Your task to perform on an android device: turn on showing notifications on the lock screen Image 0: 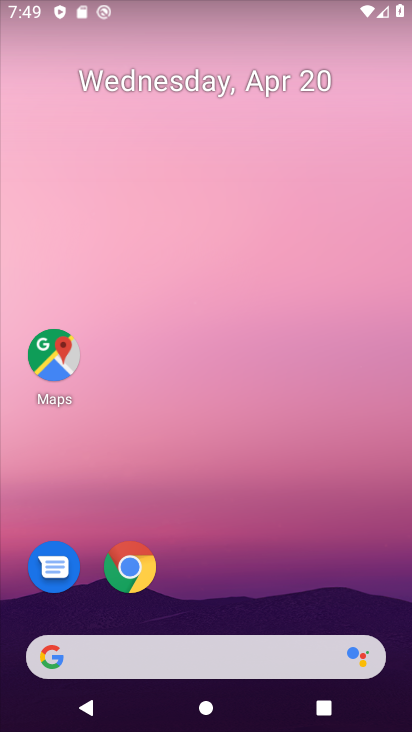
Step 0: drag from (344, 524) to (270, 11)
Your task to perform on an android device: turn on showing notifications on the lock screen Image 1: 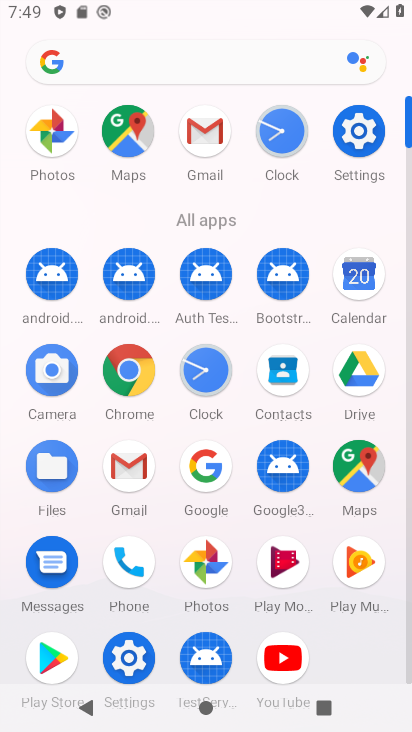
Step 1: click (365, 120)
Your task to perform on an android device: turn on showing notifications on the lock screen Image 2: 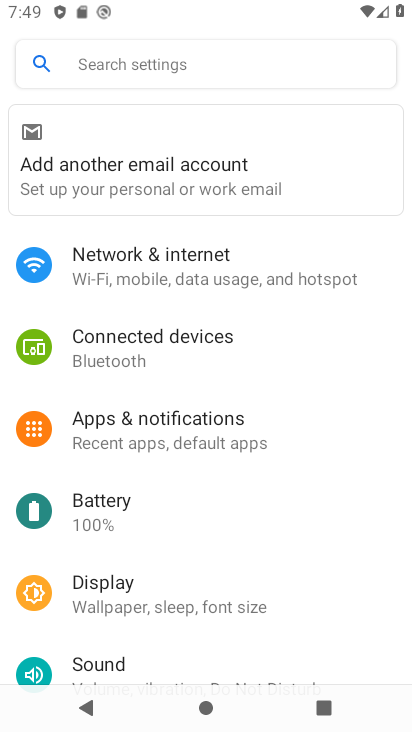
Step 2: click (229, 432)
Your task to perform on an android device: turn on showing notifications on the lock screen Image 3: 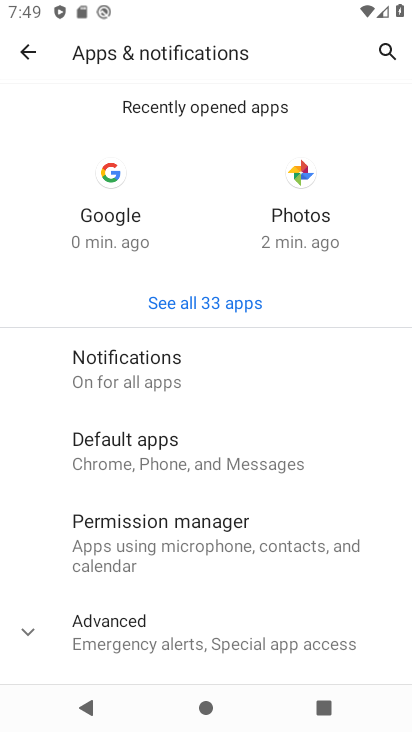
Step 3: click (141, 370)
Your task to perform on an android device: turn on showing notifications on the lock screen Image 4: 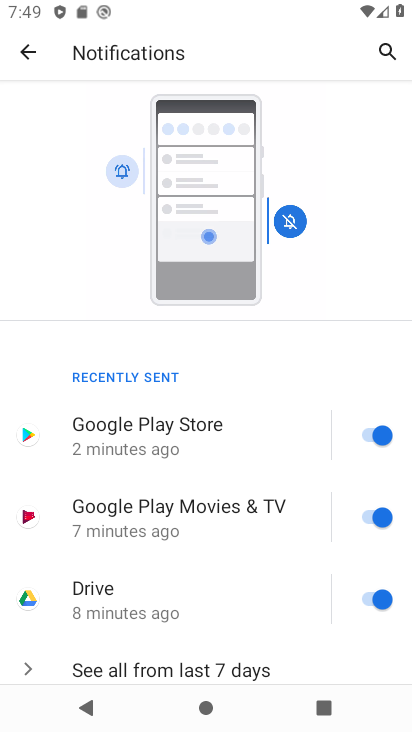
Step 4: drag from (218, 546) to (204, 345)
Your task to perform on an android device: turn on showing notifications on the lock screen Image 5: 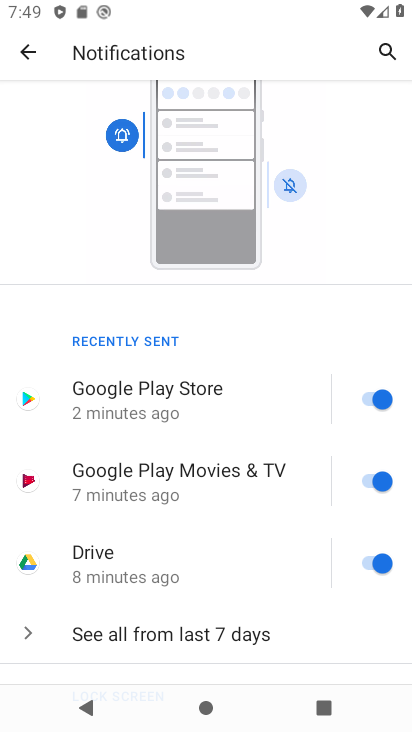
Step 5: drag from (222, 625) to (254, 333)
Your task to perform on an android device: turn on showing notifications on the lock screen Image 6: 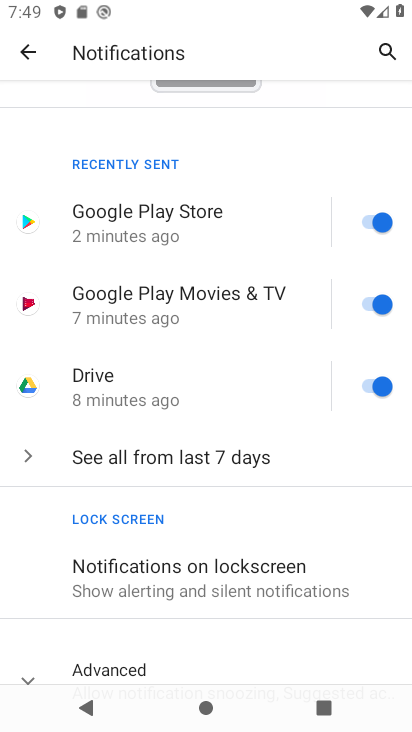
Step 6: drag from (227, 657) to (262, 348)
Your task to perform on an android device: turn on showing notifications on the lock screen Image 7: 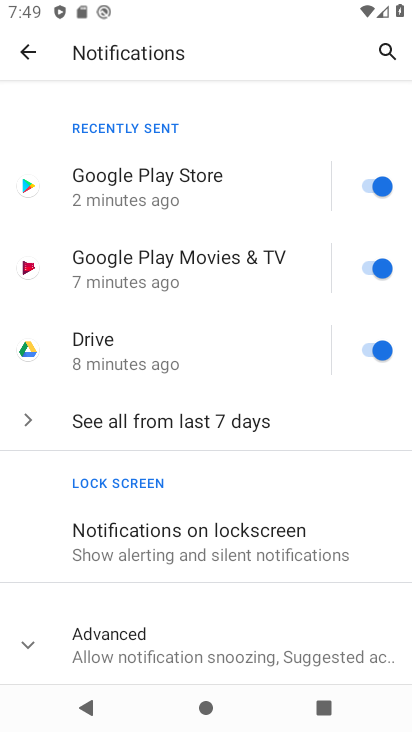
Step 7: click (251, 546)
Your task to perform on an android device: turn on showing notifications on the lock screen Image 8: 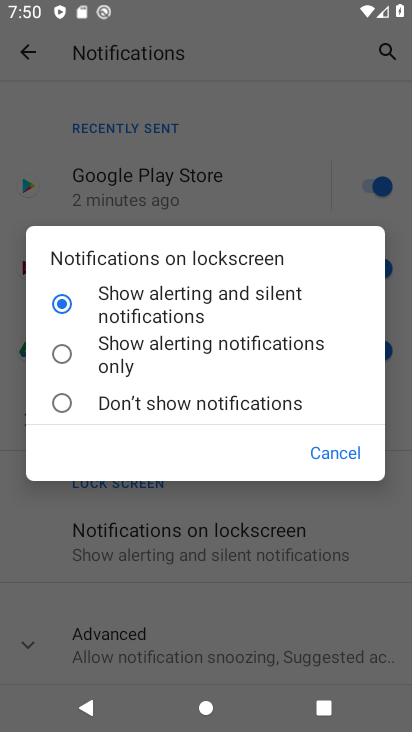
Step 8: click (66, 355)
Your task to perform on an android device: turn on showing notifications on the lock screen Image 9: 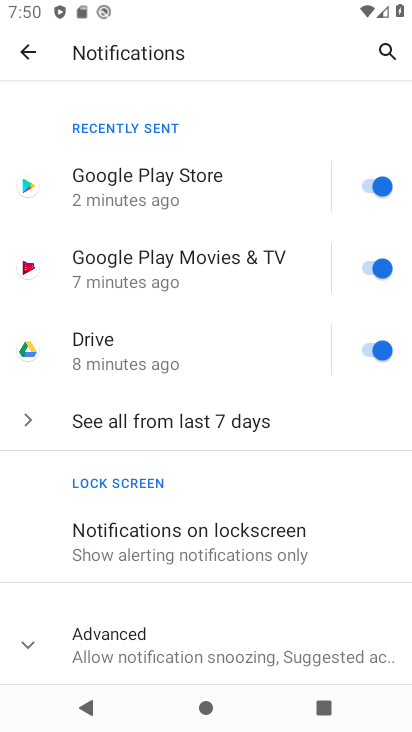
Step 9: task complete